Your task to perform on an android device: Check the weather Image 0: 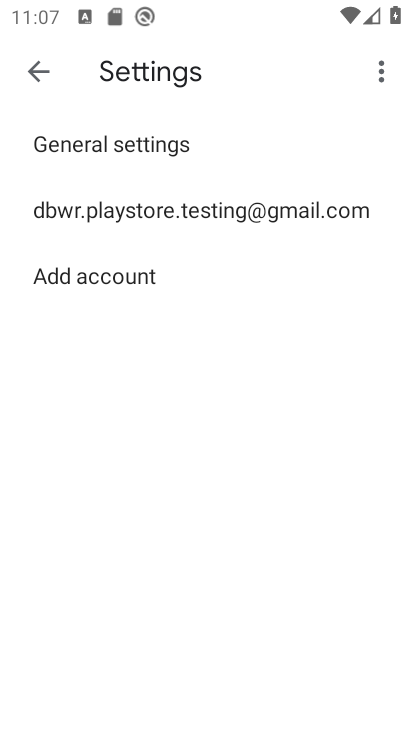
Step 0: press home button
Your task to perform on an android device: Check the weather Image 1: 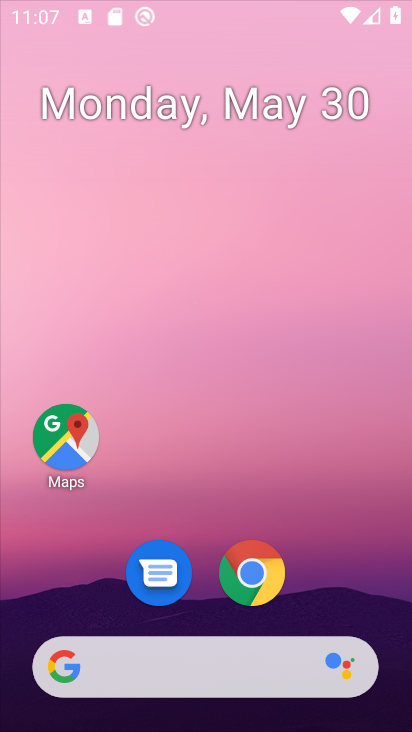
Step 1: drag from (237, 630) to (303, 0)
Your task to perform on an android device: Check the weather Image 2: 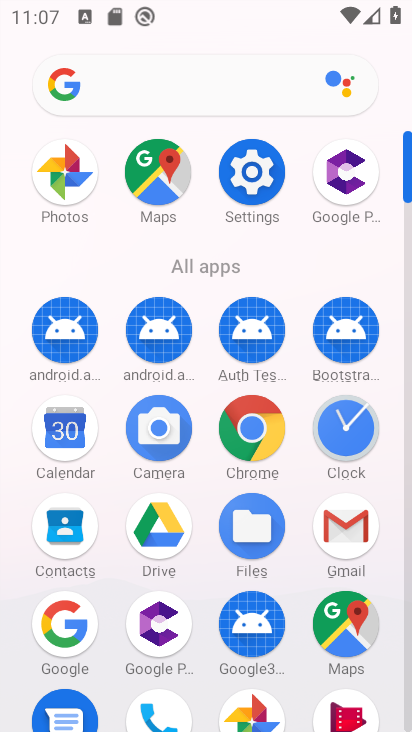
Step 2: click (254, 454)
Your task to perform on an android device: Check the weather Image 3: 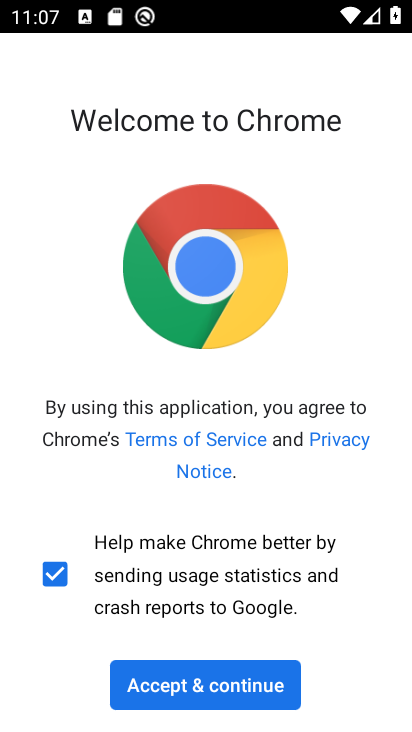
Step 3: press home button
Your task to perform on an android device: Check the weather Image 4: 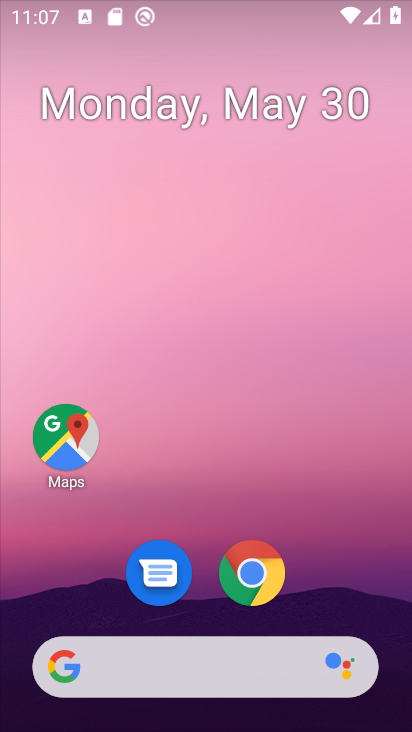
Step 4: drag from (99, 566) to (152, 112)
Your task to perform on an android device: Check the weather Image 5: 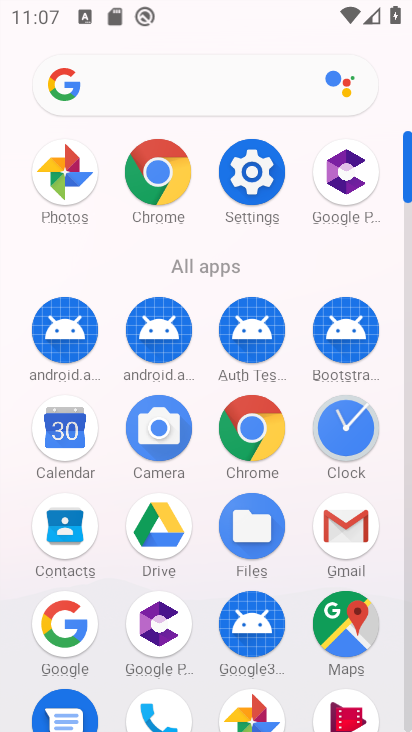
Step 5: click (65, 638)
Your task to perform on an android device: Check the weather Image 6: 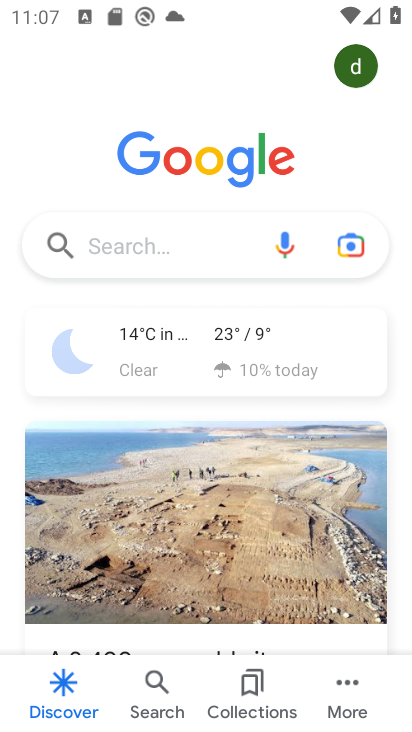
Step 6: click (206, 249)
Your task to perform on an android device: Check the weather Image 7: 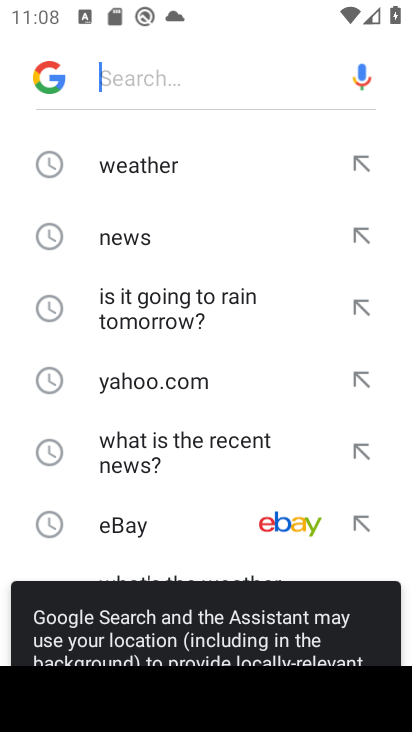
Step 7: click (177, 162)
Your task to perform on an android device: Check the weather Image 8: 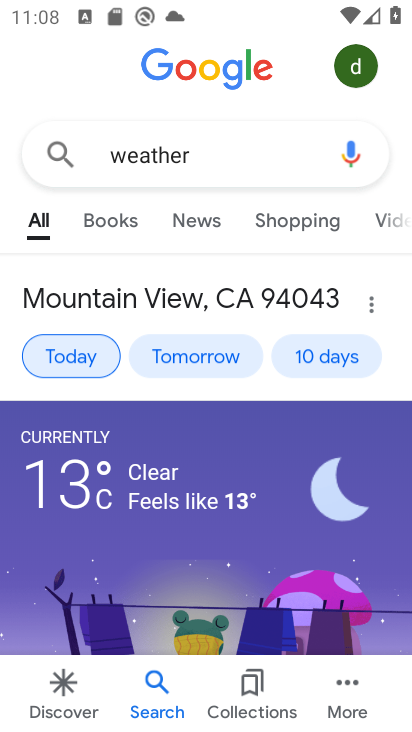
Step 8: task complete